Your task to perform on an android device: turn smart compose on in the gmail app Image 0: 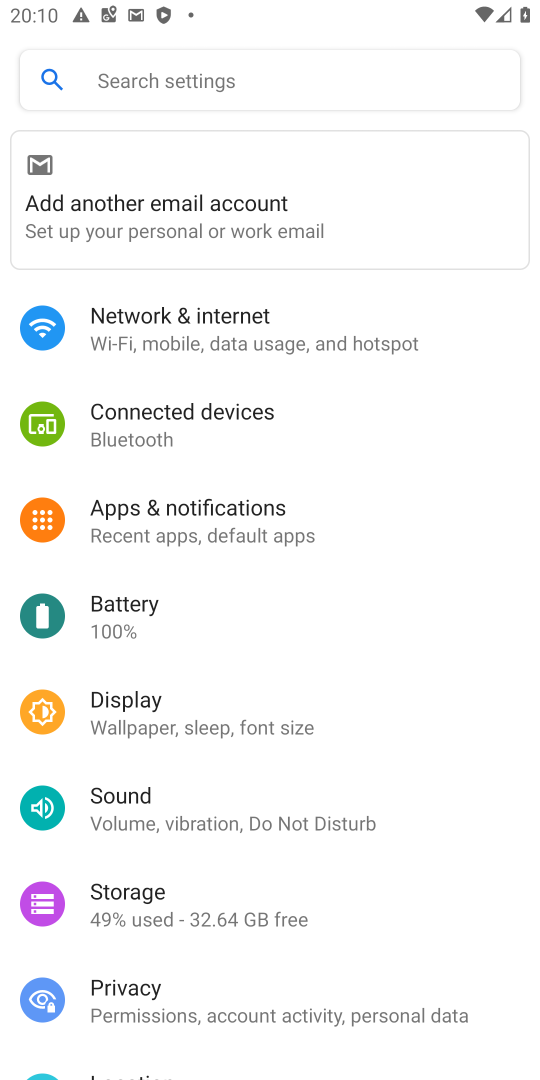
Step 0: press home button
Your task to perform on an android device: turn smart compose on in the gmail app Image 1: 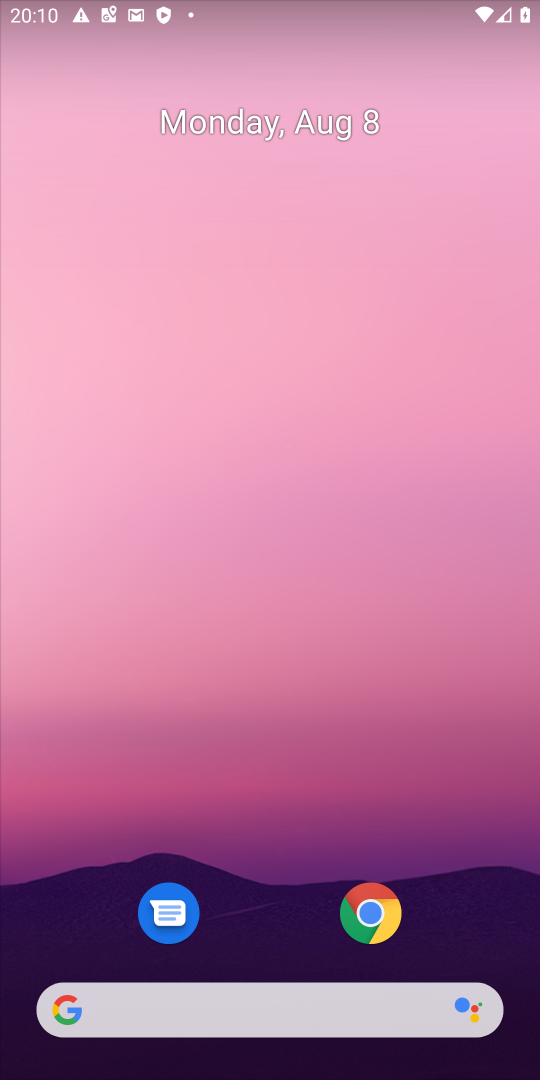
Step 1: drag from (305, 935) to (111, 432)
Your task to perform on an android device: turn smart compose on in the gmail app Image 2: 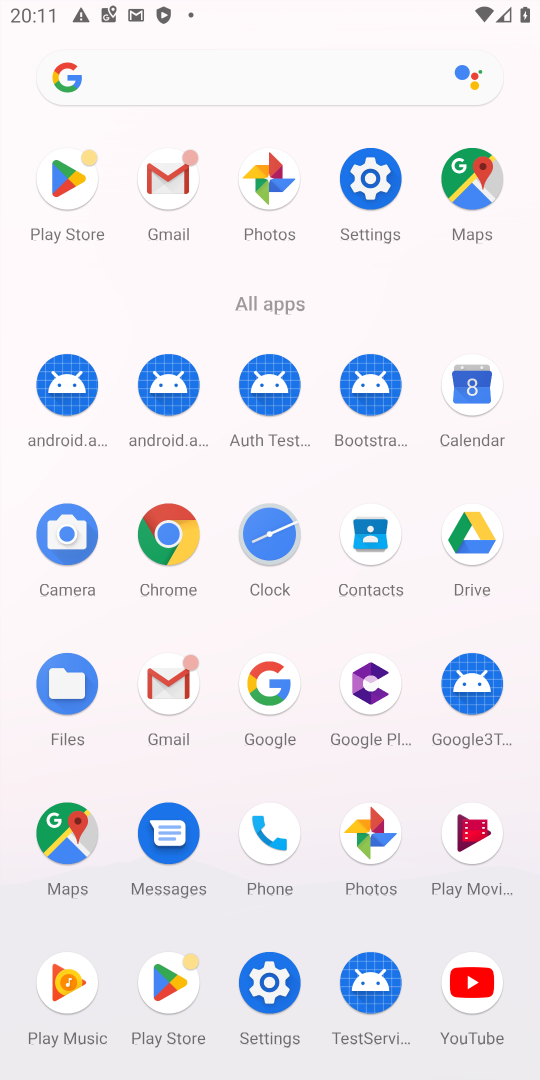
Step 2: click (177, 696)
Your task to perform on an android device: turn smart compose on in the gmail app Image 3: 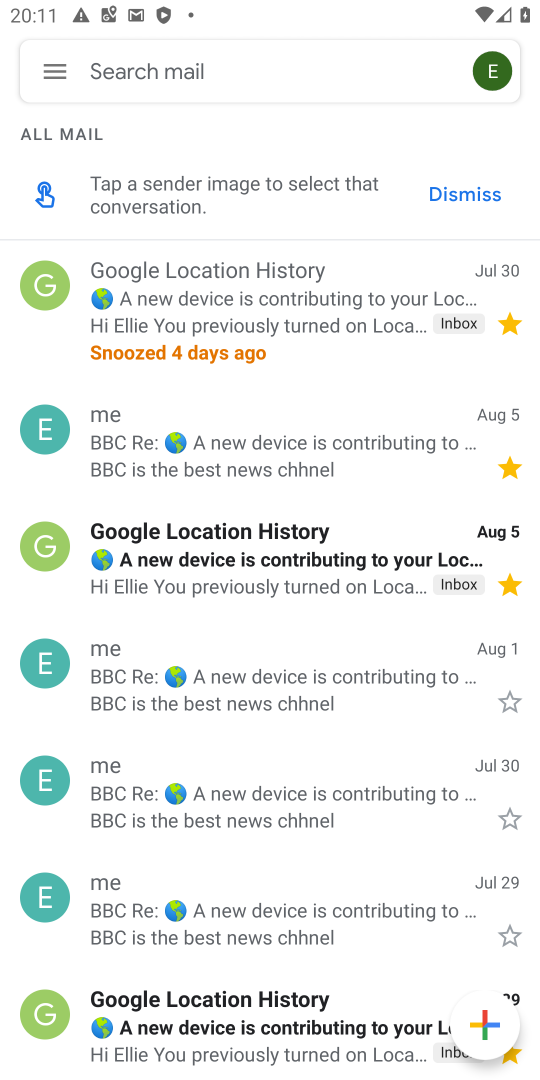
Step 3: click (58, 83)
Your task to perform on an android device: turn smart compose on in the gmail app Image 4: 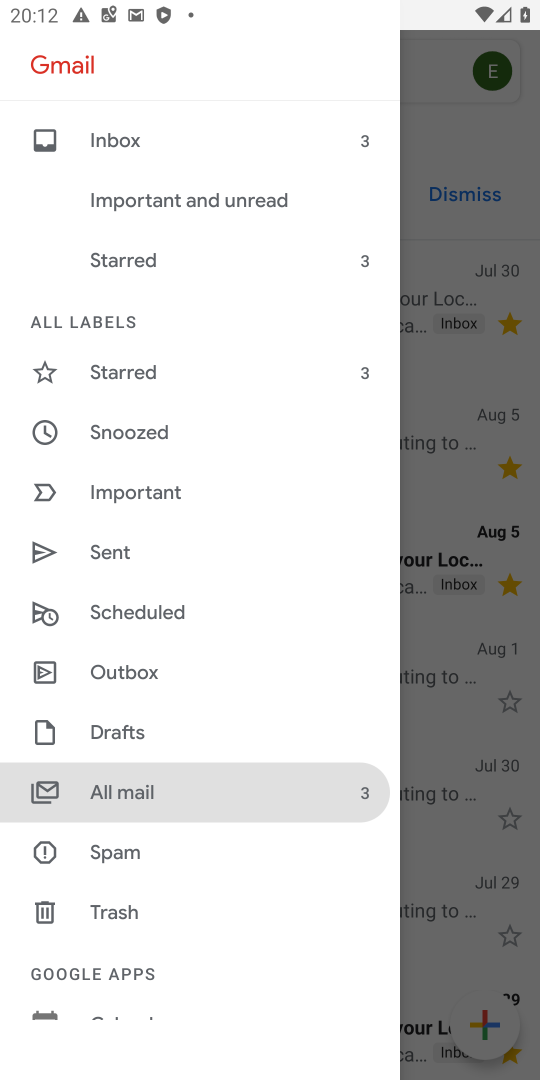
Step 4: drag from (235, 786) to (44, 45)
Your task to perform on an android device: turn smart compose on in the gmail app Image 5: 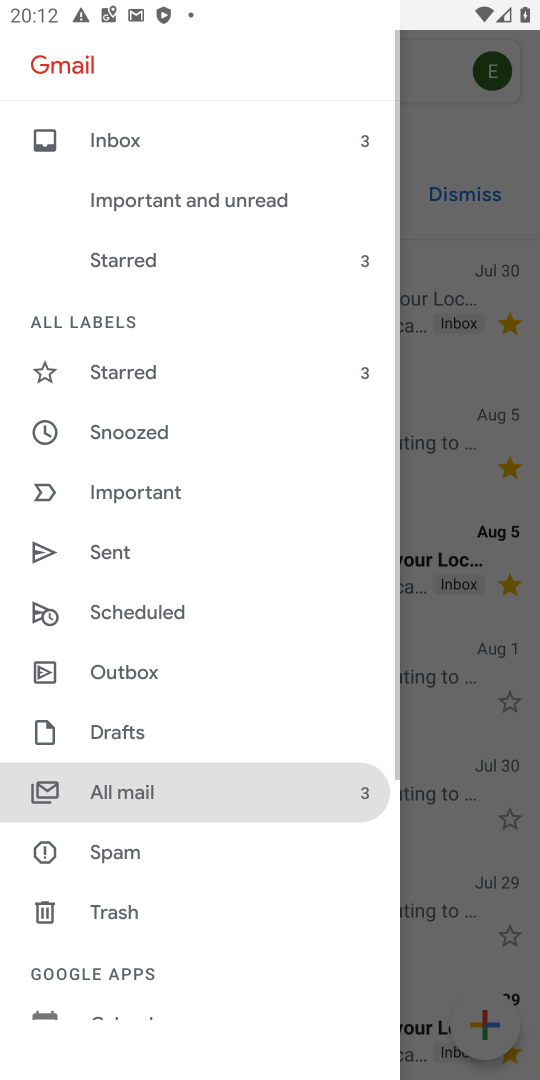
Step 5: drag from (106, 920) to (99, 341)
Your task to perform on an android device: turn smart compose on in the gmail app Image 6: 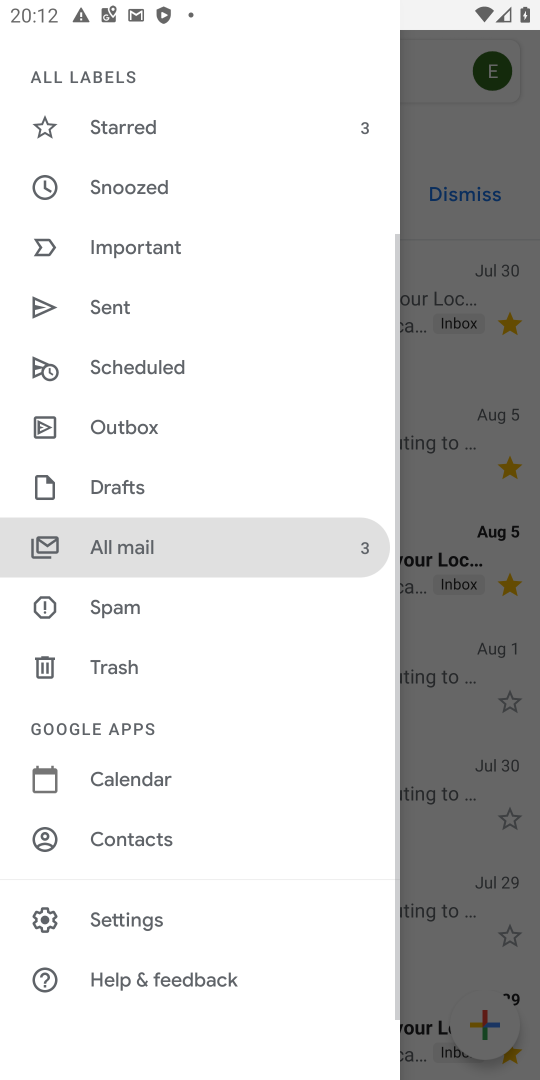
Step 6: click (121, 908)
Your task to perform on an android device: turn smart compose on in the gmail app Image 7: 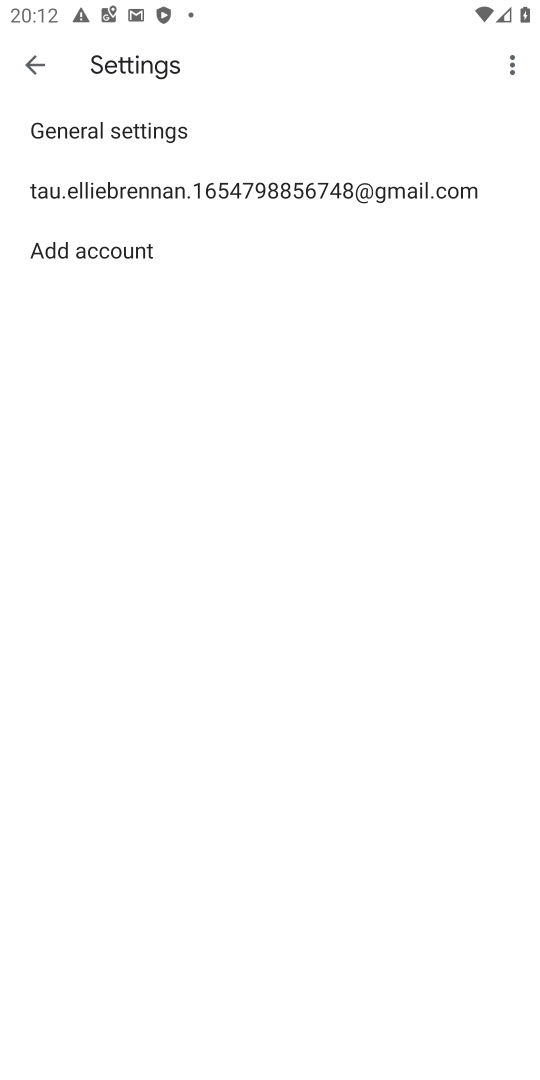
Step 7: click (428, 187)
Your task to perform on an android device: turn smart compose on in the gmail app Image 8: 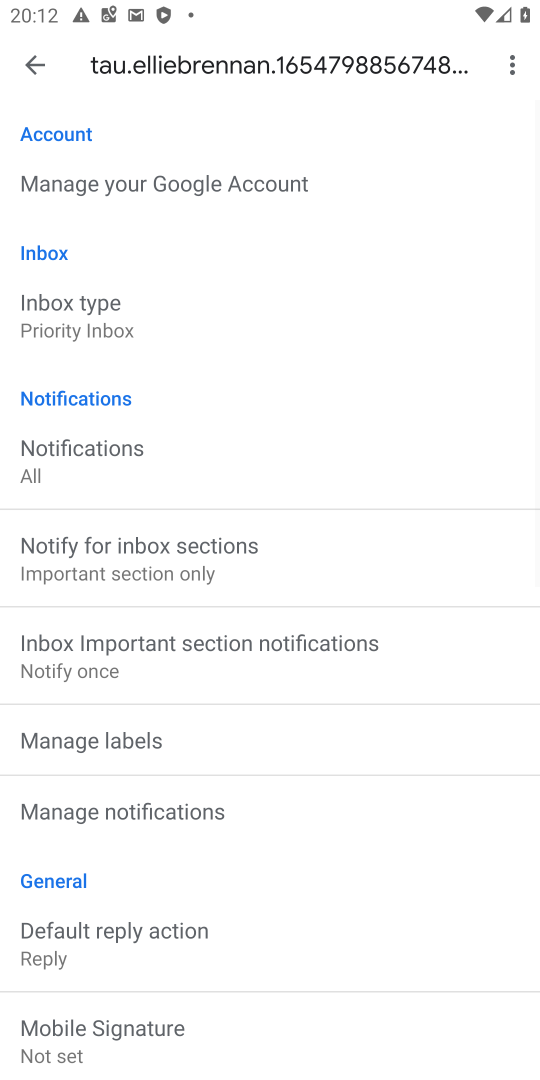
Step 8: task complete